Your task to perform on an android device: Open Chrome and go to the settings page Image 0: 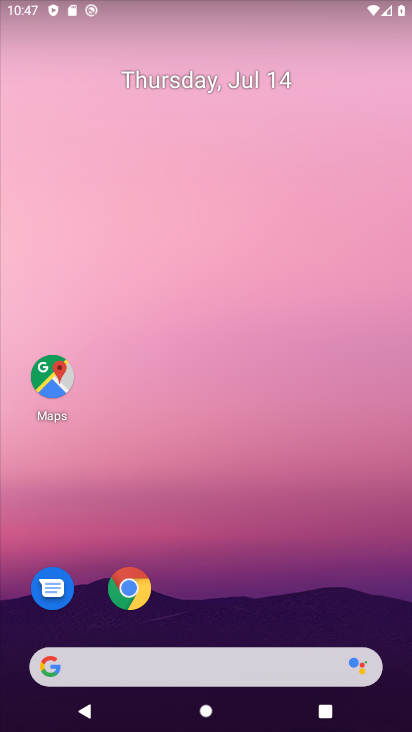
Step 0: click (133, 589)
Your task to perform on an android device: Open Chrome and go to the settings page Image 1: 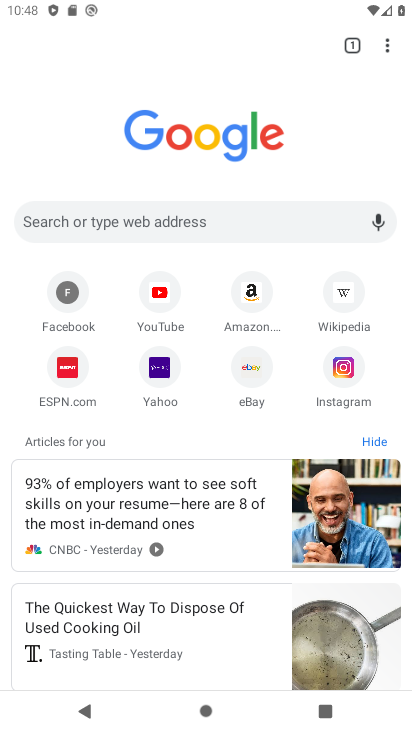
Step 1: click (388, 43)
Your task to perform on an android device: Open Chrome and go to the settings page Image 2: 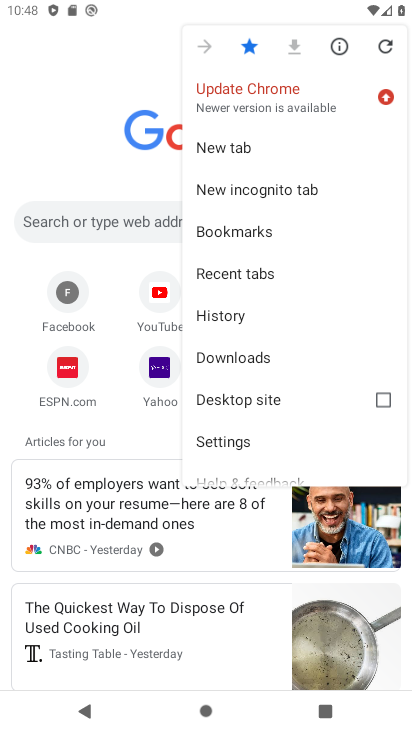
Step 2: click (224, 438)
Your task to perform on an android device: Open Chrome and go to the settings page Image 3: 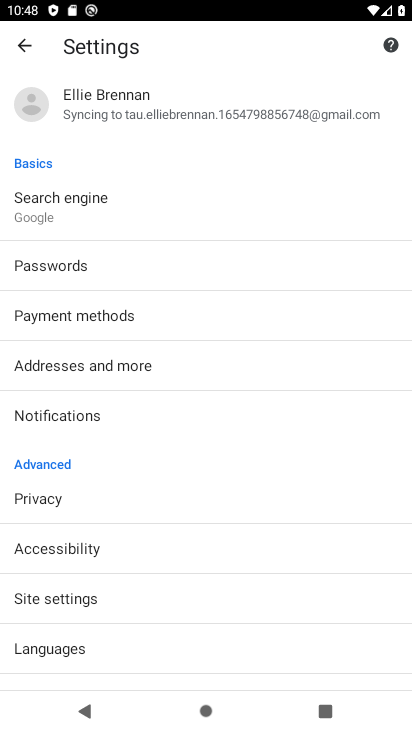
Step 3: task complete